Your task to perform on an android device: Turn off the flashlight Image 0: 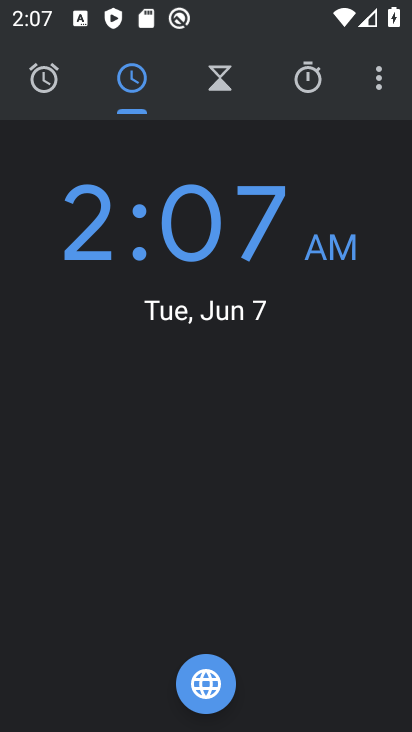
Step 0: click (408, 490)
Your task to perform on an android device: Turn off the flashlight Image 1: 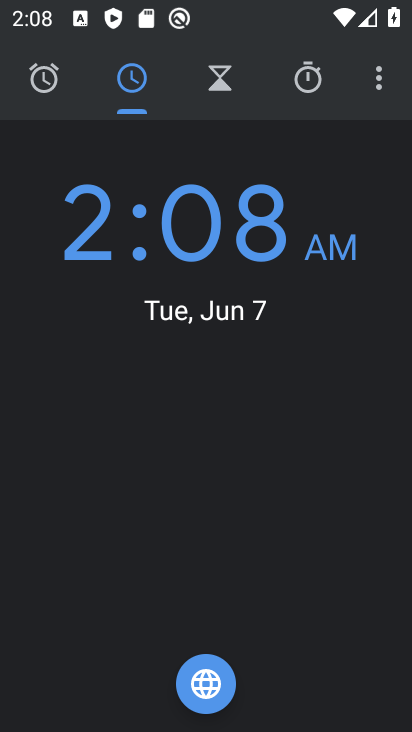
Step 1: press home button
Your task to perform on an android device: Turn off the flashlight Image 2: 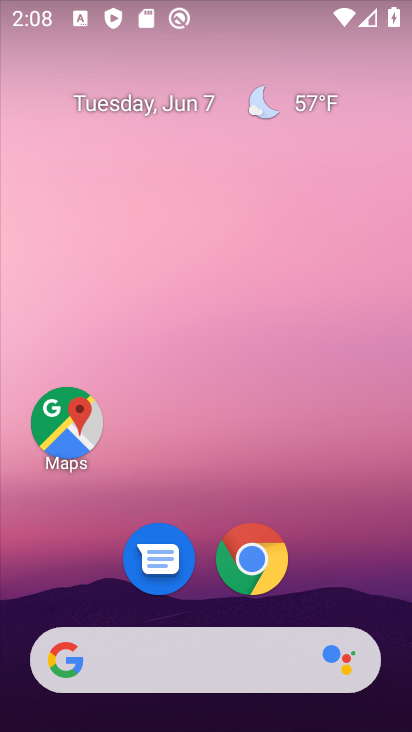
Step 2: drag from (35, 544) to (186, 126)
Your task to perform on an android device: Turn off the flashlight Image 3: 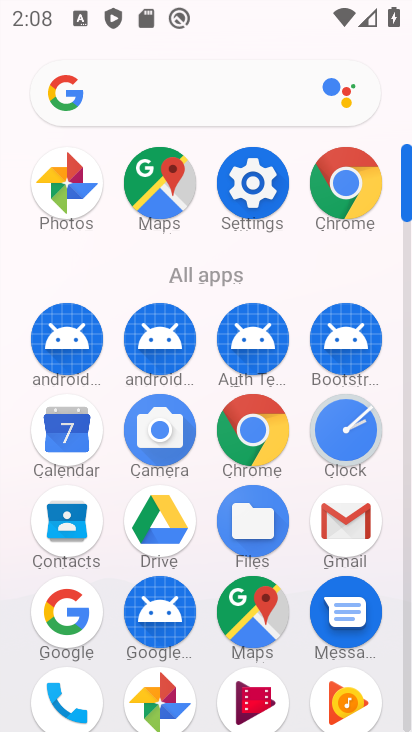
Step 3: click (237, 197)
Your task to perform on an android device: Turn off the flashlight Image 4: 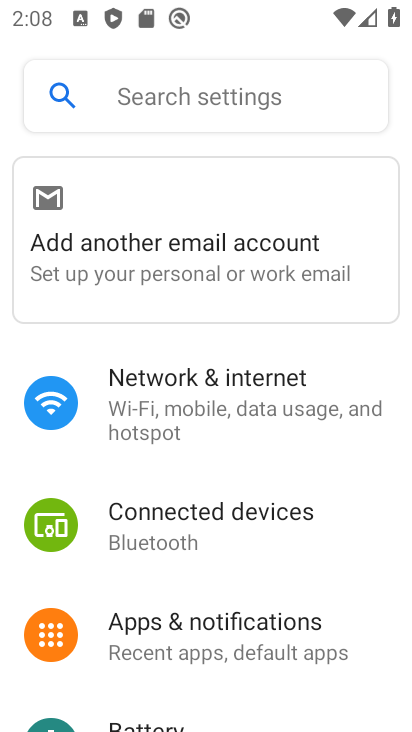
Step 4: click (115, 658)
Your task to perform on an android device: Turn off the flashlight Image 5: 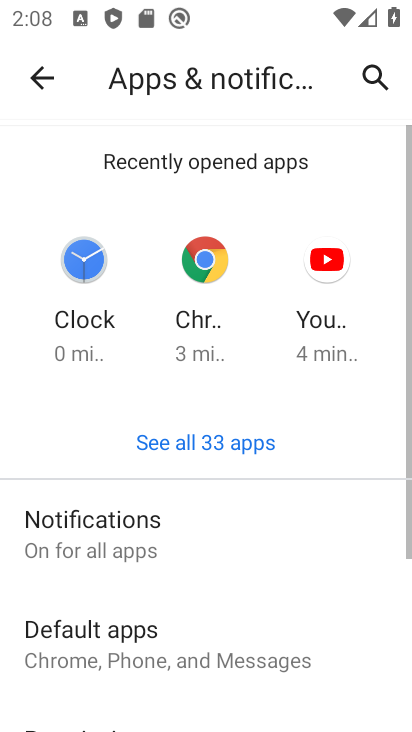
Step 5: task complete